Your task to perform on an android device: turn off location Image 0: 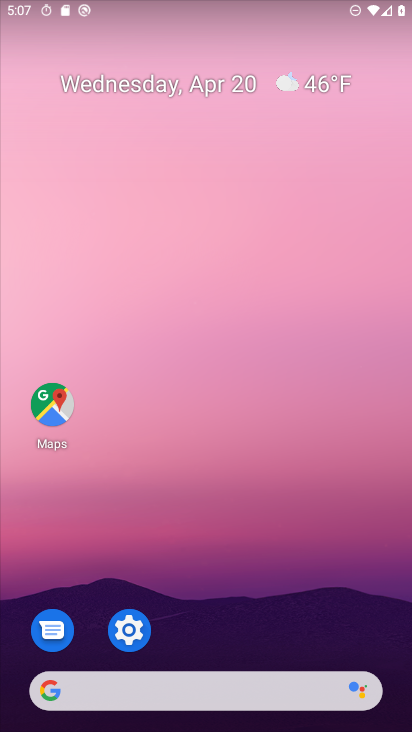
Step 0: drag from (320, 503) to (270, 3)
Your task to perform on an android device: turn off location Image 1: 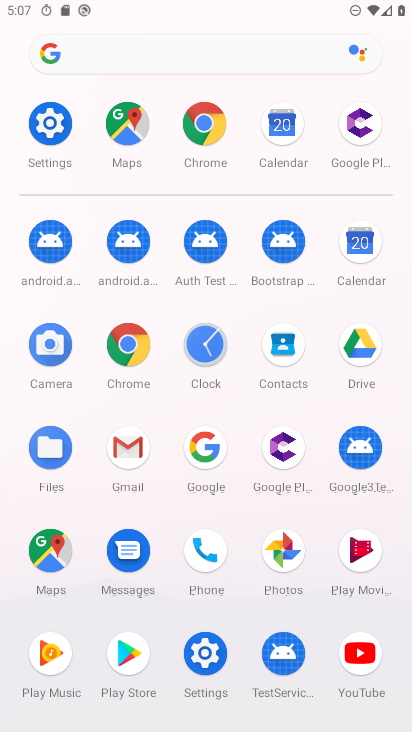
Step 1: click (211, 646)
Your task to perform on an android device: turn off location Image 2: 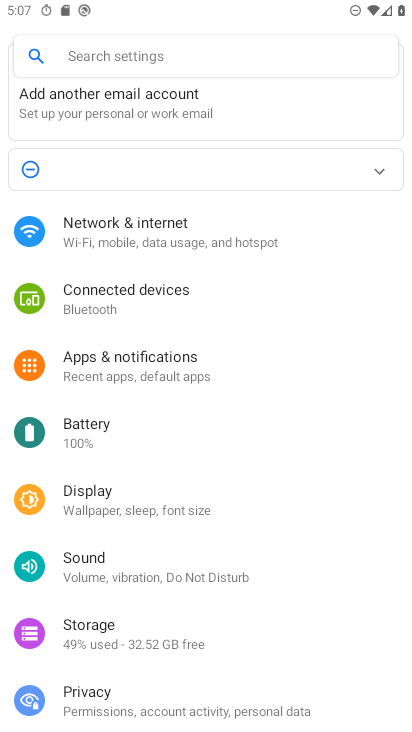
Step 2: drag from (111, 686) to (113, 198)
Your task to perform on an android device: turn off location Image 3: 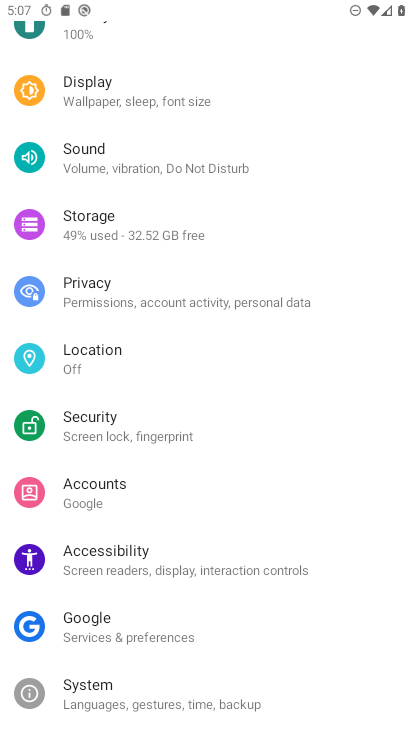
Step 3: click (90, 372)
Your task to perform on an android device: turn off location Image 4: 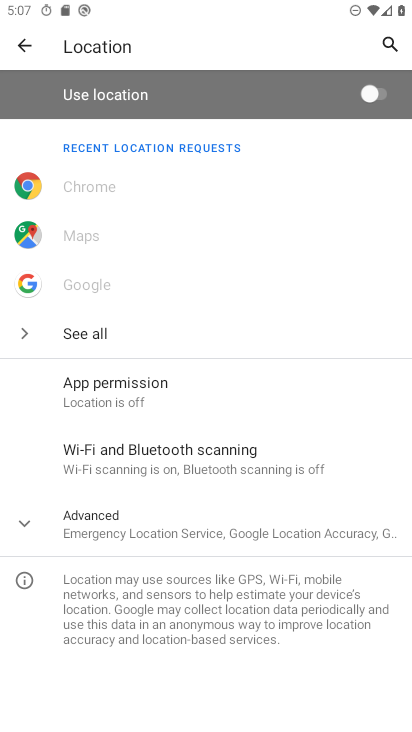
Step 4: task complete